Your task to perform on an android device: turn on sleep mode Image 0: 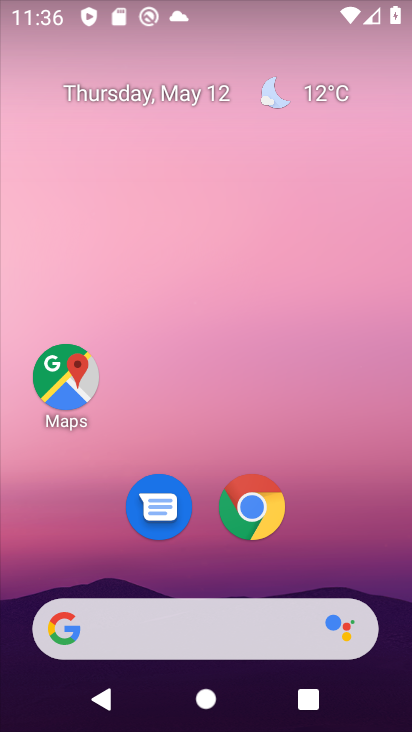
Step 0: drag from (229, 547) to (251, 11)
Your task to perform on an android device: turn on sleep mode Image 1: 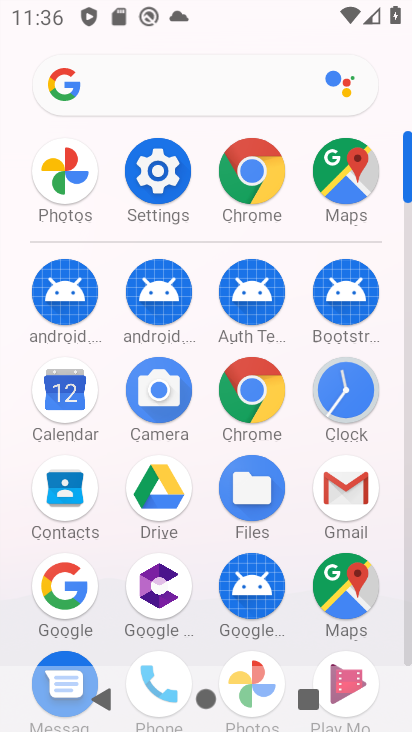
Step 1: click (165, 199)
Your task to perform on an android device: turn on sleep mode Image 2: 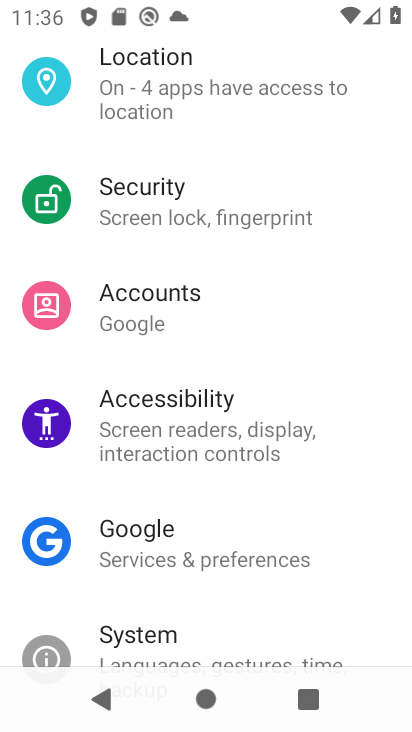
Step 2: drag from (177, 98) to (196, 632)
Your task to perform on an android device: turn on sleep mode Image 3: 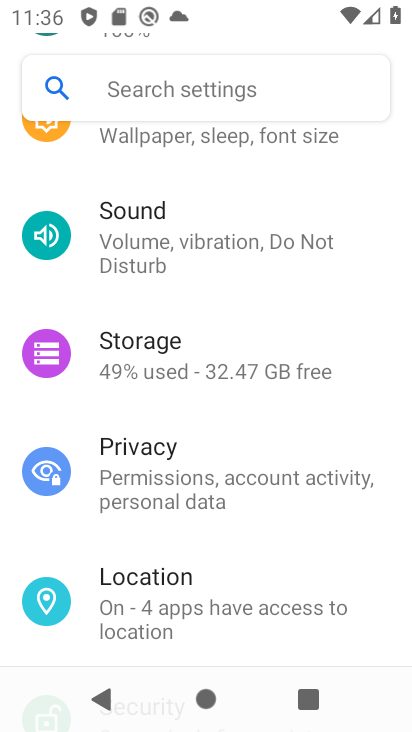
Step 3: click (200, 77)
Your task to perform on an android device: turn on sleep mode Image 4: 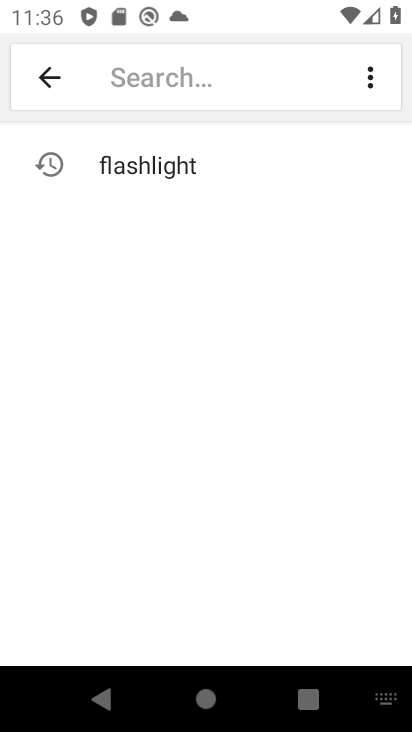
Step 4: type "sleep mode"
Your task to perform on an android device: turn on sleep mode Image 5: 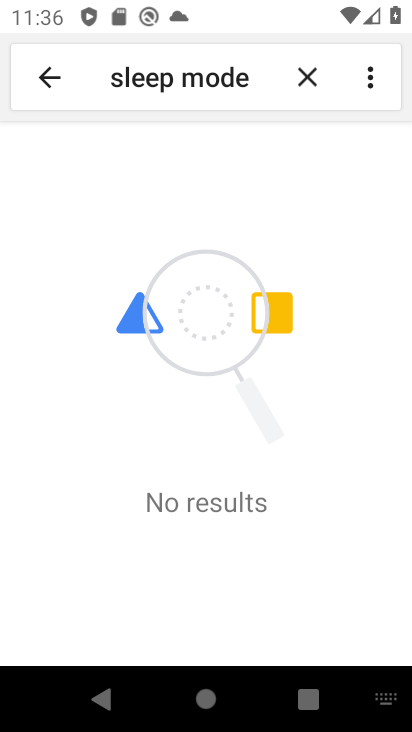
Step 5: task complete